Your task to perform on an android device: Go to eBay Image 0: 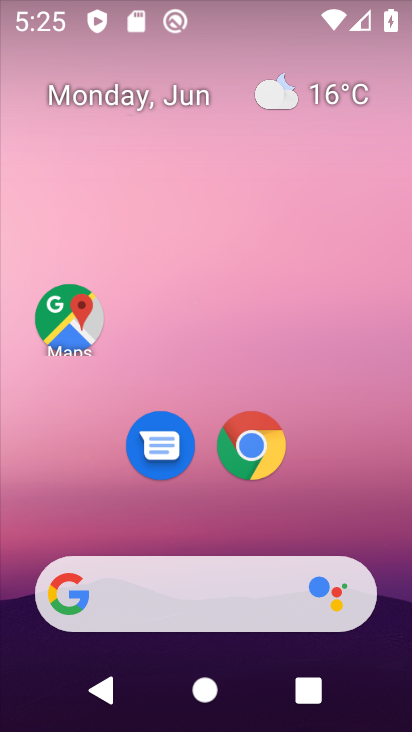
Step 0: click (255, 441)
Your task to perform on an android device: Go to eBay Image 1: 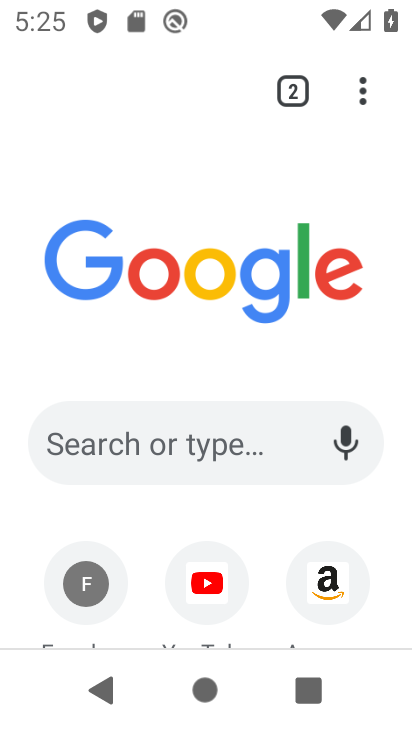
Step 1: click (196, 442)
Your task to perform on an android device: Go to eBay Image 2: 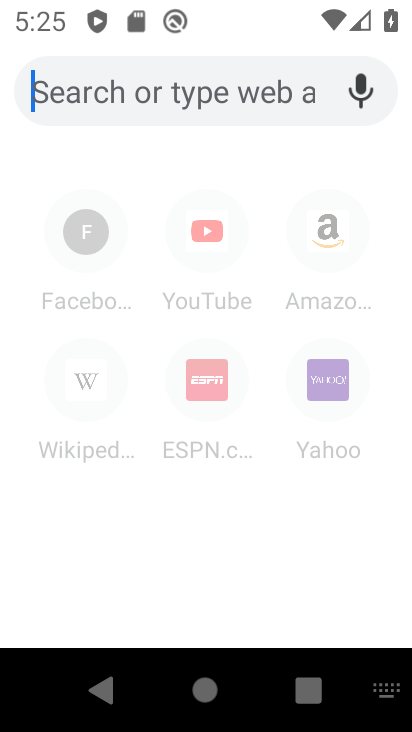
Step 2: type "eBay"
Your task to perform on an android device: Go to eBay Image 3: 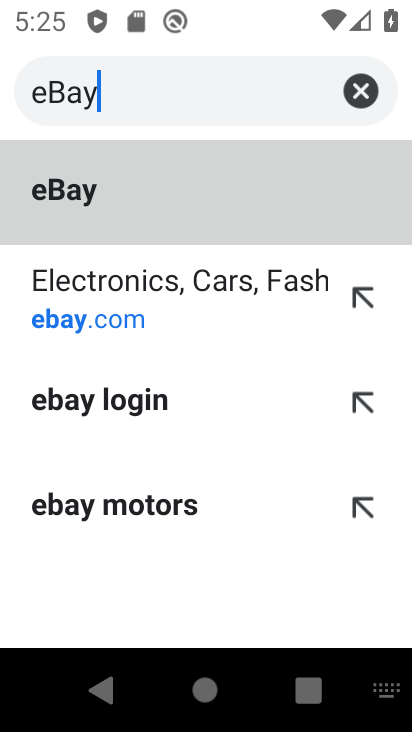
Step 3: click (98, 192)
Your task to perform on an android device: Go to eBay Image 4: 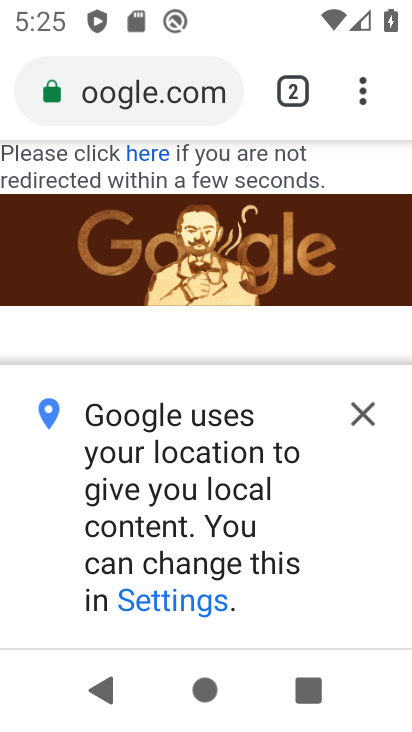
Step 4: click (367, 418)
Your task to perform on an android device: Go to eBay Image 5: 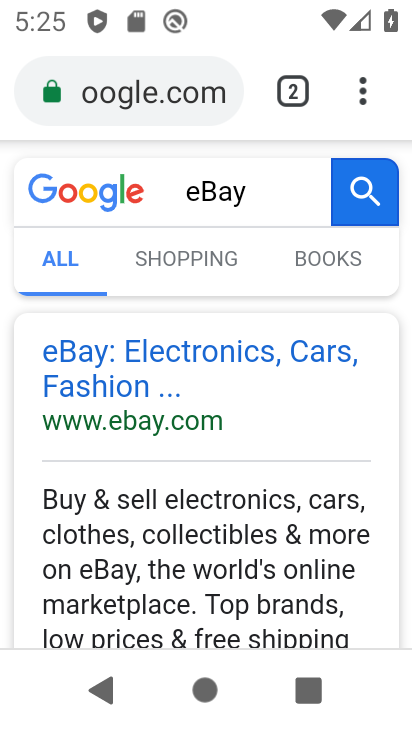
Step 5: click (151, 392)
Your task to perform on an android device: Go to eBay Image 6: 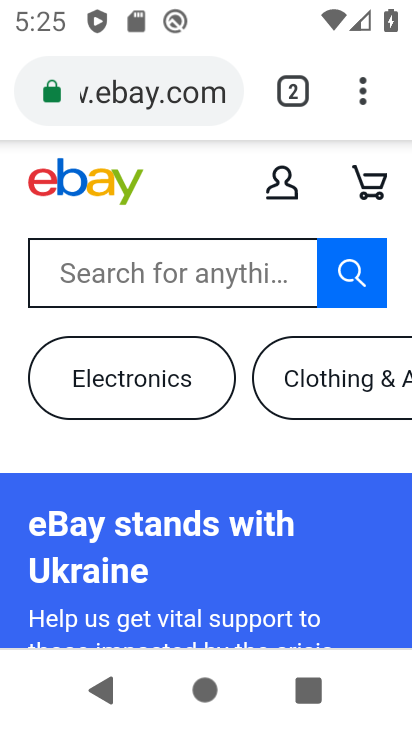
Step 6: task complete